Your task to perform on an android device: Go to display settings Image 0: 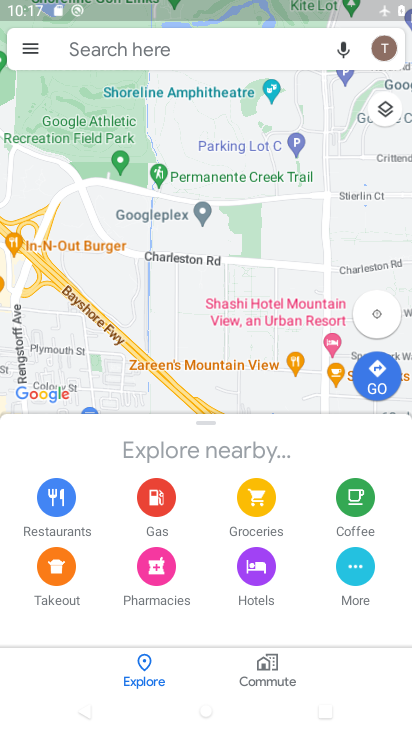
Step 0: drag from (194, 604) to (329, 557)
Your task to perform on an android device: Go to display settings Image 1: 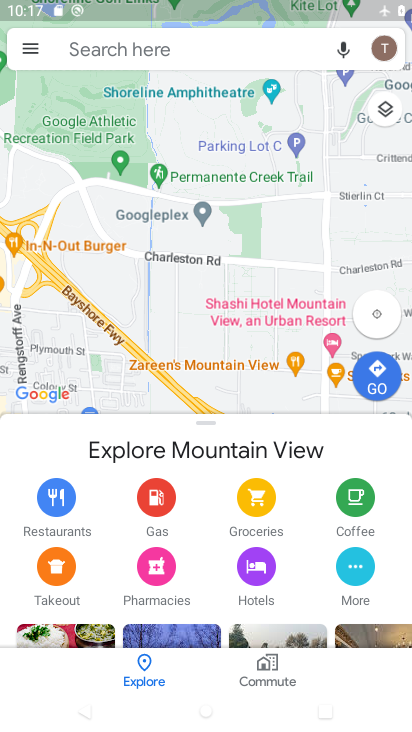
Step 1: press home button
Your task to perform on an android device: Go to display settings Image 2: 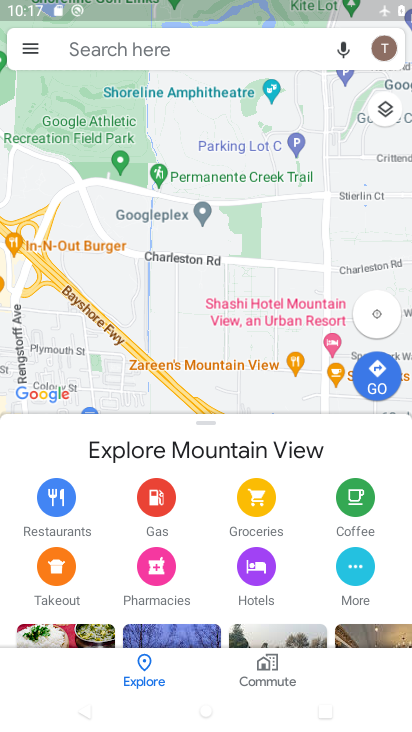
Step 2: drag from (329, 557) to (373, 551)
Your task to perform on an android device: Go to display settings Image 3: 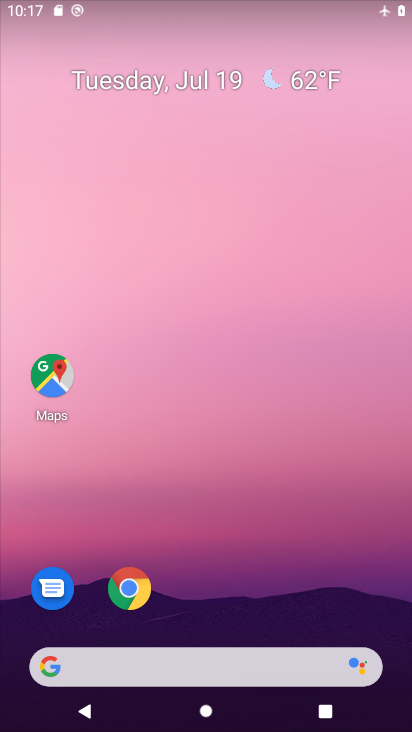
Step 3: drag from (208, 573) to (206, 40)
Your task to perform on an android device: Go to display settings Image 4: 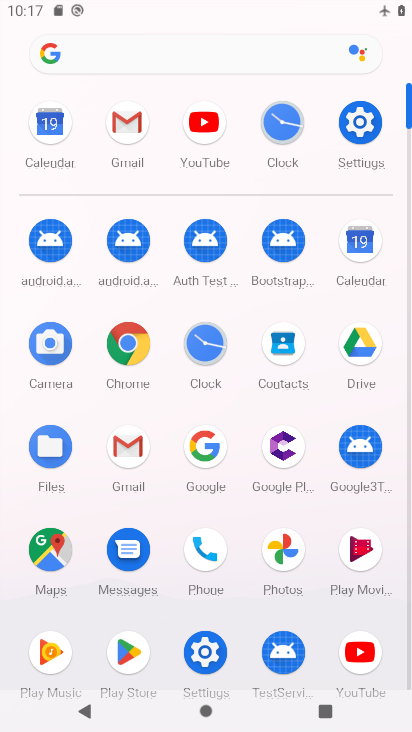
Step 4: click (358, 121)
Your task to perform on an android device: Go to display settings Image 5: 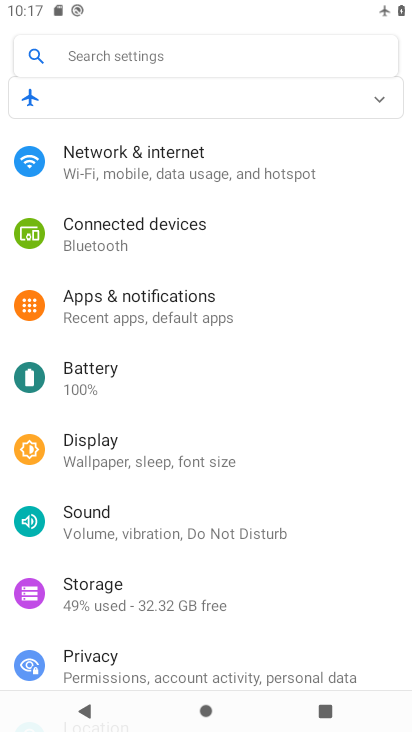
Step 5: click (120, 468)
Your task to perform on an android device: Go to display settings Image 6: 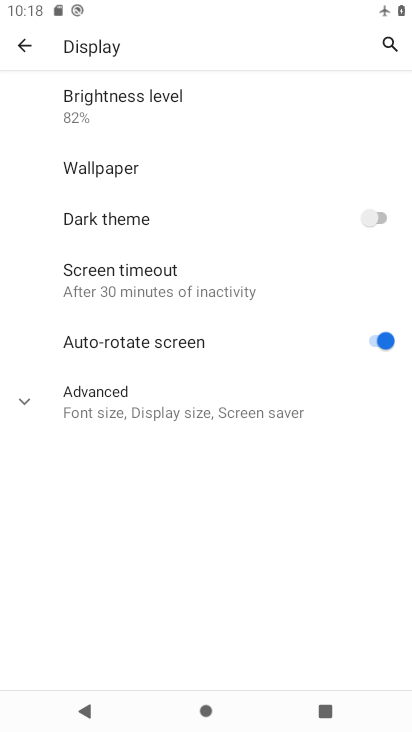
Step 6: task complete